Your task to perform on an android device: turn off javascript in the chrome app Image 0: 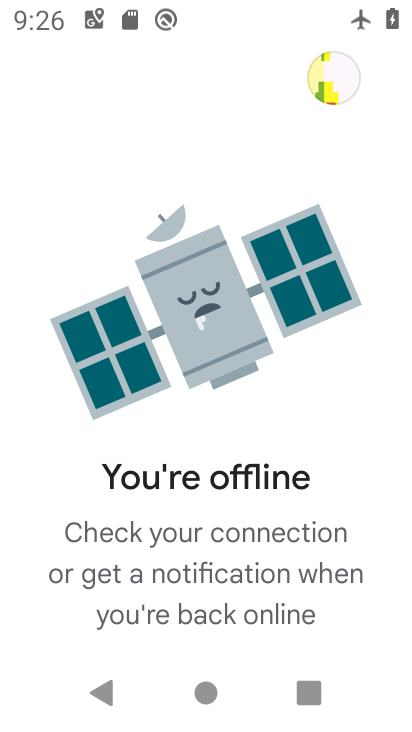
Step 0: press home button
Your task to perform on an android device: turn off javascript in the chrome app Image 1: 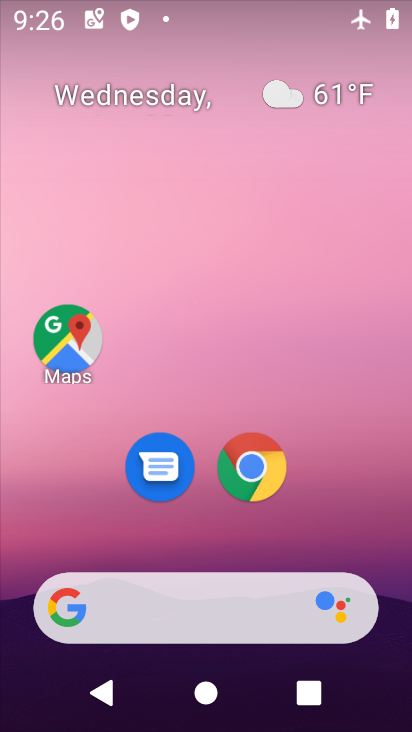
Step 1: click (251, 467)
Your task to perform on an android device: turn off javascript in the chrome app Image 2: 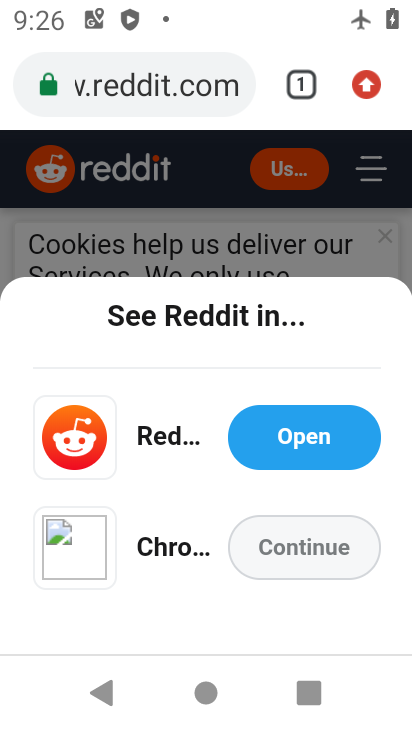
Step 2: click (364, 93)
Your task to perform on an android device: turn off javascript in the chrome app Image 3: 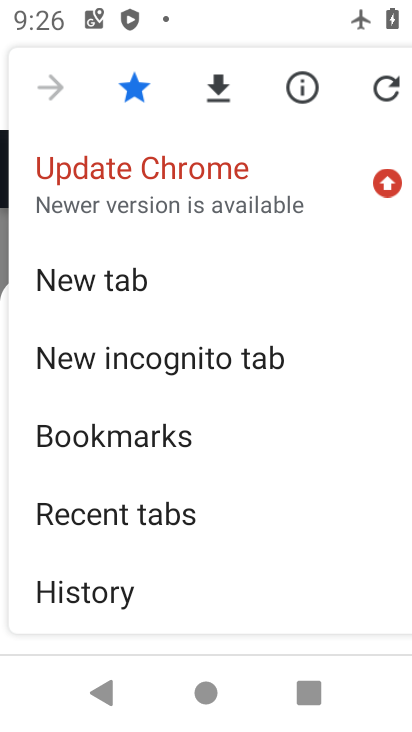
Step 3: drag from (111, 545) to (115, 181)
Your task to perform on an android device: turn off javascript in the chrome app Image 4: 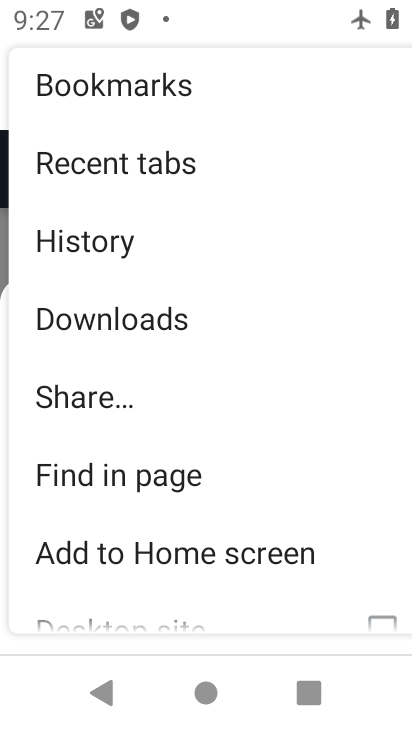
Step 4: drag from (164, 597) to (174, 211)
Your task to perform on an android device: turn off javascript in the chrome app Image 5: 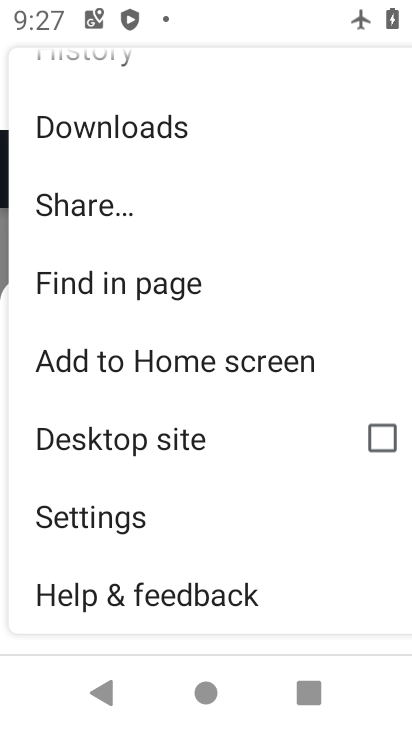
Step 5: click (78, 516)
Your task to perform on an android device: turn off javascript in the chrome app Image 6: 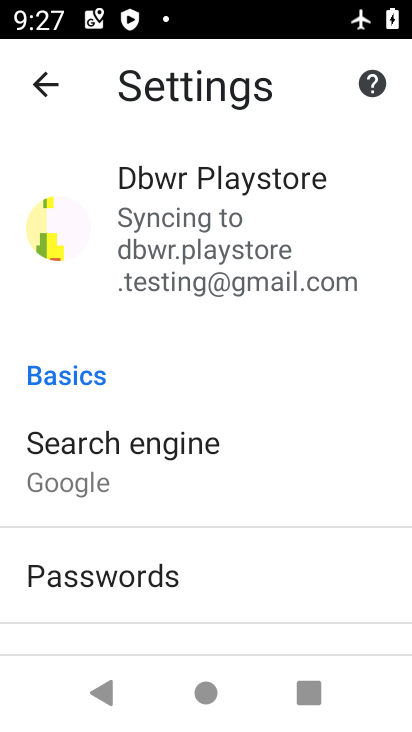
Step 6: drag from (205, 636) to (242, 285)
Your task to perform on an android device: turn off javascript in the chrome app Image 7: 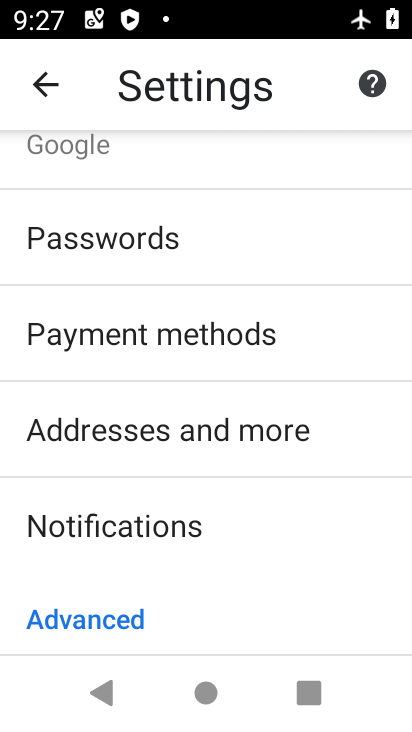
Step 7: drag from (198, 606) to (203, 285)
Your task to perform on an android device: turn off javascript in the chrome app Image 8: 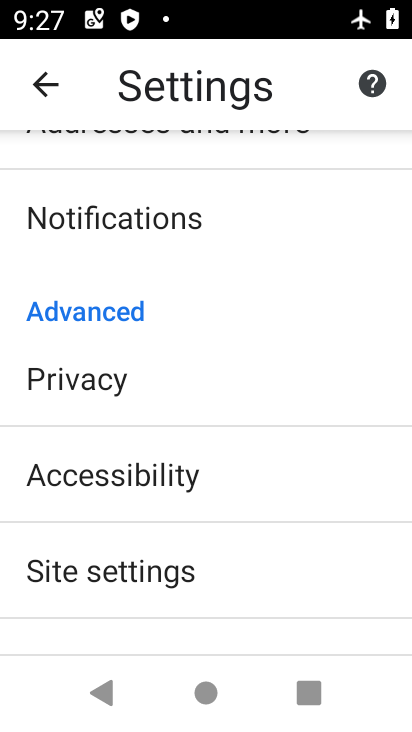
Step 8: click (124, 568)
Your task to perform on an android device: turn off javascript in the chrome app Image 9: 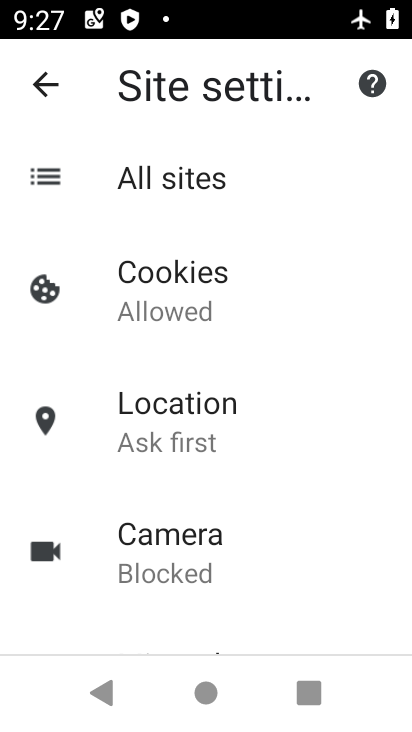
Step 9: drag from (266, 595) to (243, 219)
Your task to perform on an android device: turn off javascript in the chrome app Image 10: 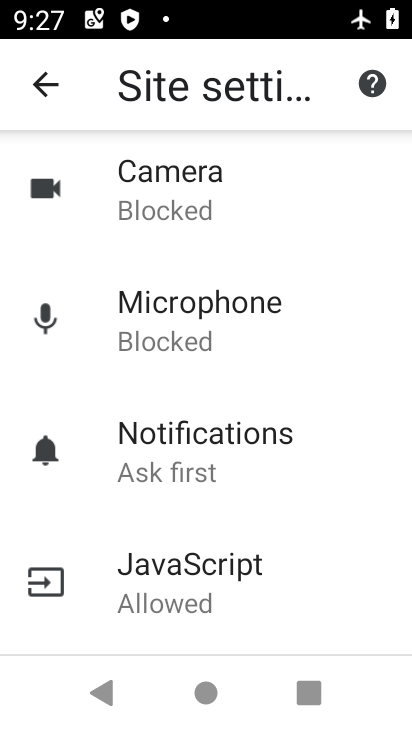
Step 10: click (142, 575)
Your task to perform on an android device: turn off javascript in the chrome app Image 11: 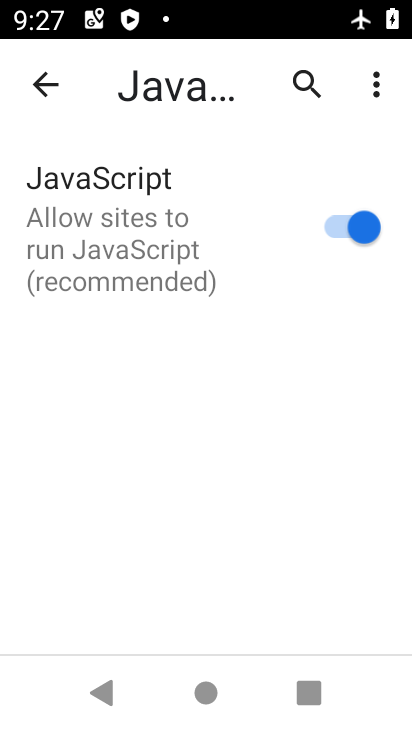
Step 11: click (337, 225)
Your task to perform on an android device: turn off javascript in the chrome app Image 12: 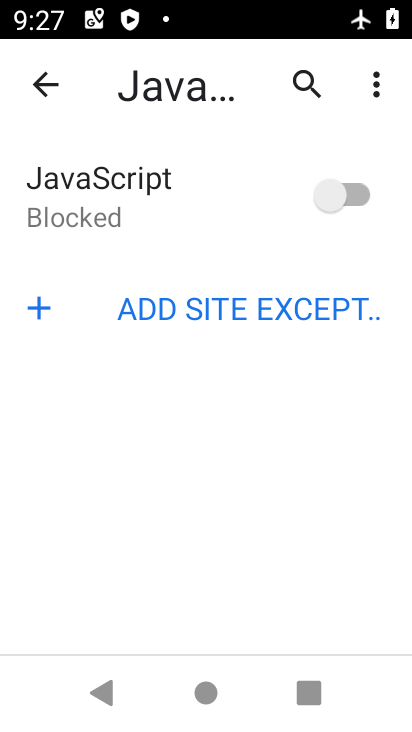
Step 12: task complete